Your task to perform on an android device: toggle wifi Image 0: 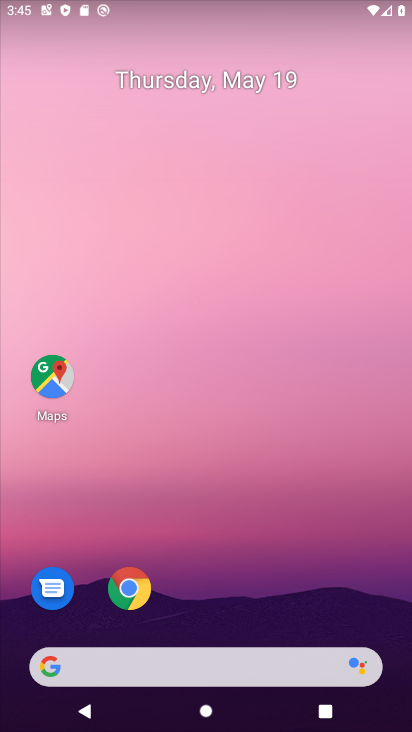
Step 0: drag from (167, 5) to (233, 572)
Your task to perform on an android device: toggle wifi Image 1: 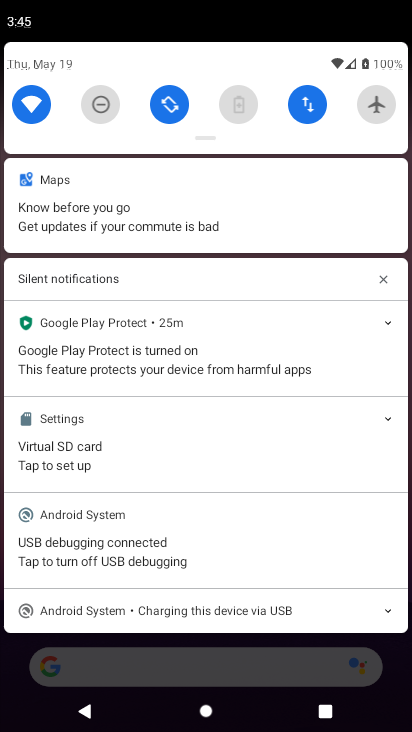
Step 1: click (38, 93)
Your task to perform on an android device: toggle wifi Image 2: 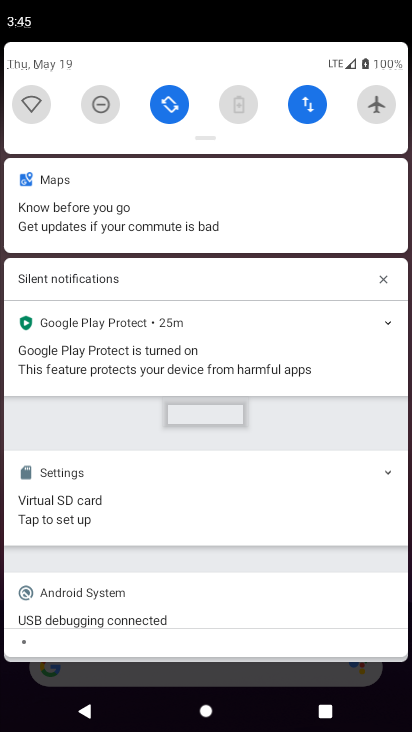
Step 2: click (38, 93)
Your task to perform on an android device: toggle wifi Image 3: 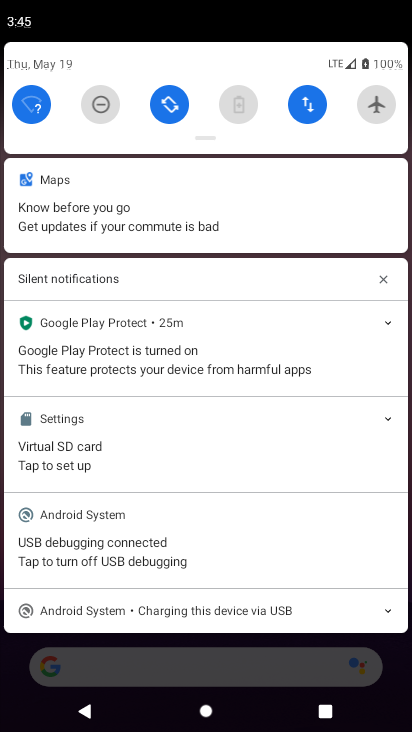
Step 3: task complete